Your task to perform on an android device: turn off data saver in the chrome app Image 0: 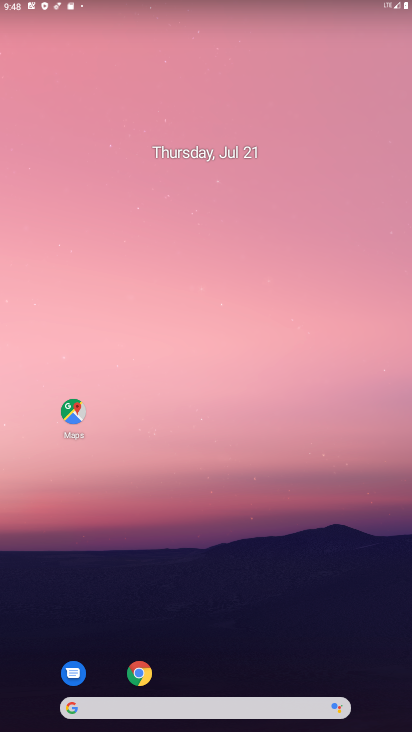
Step 0: click (145, 676)
Your task to perform on an android device: turn off data saver in the chrome app Image 1: 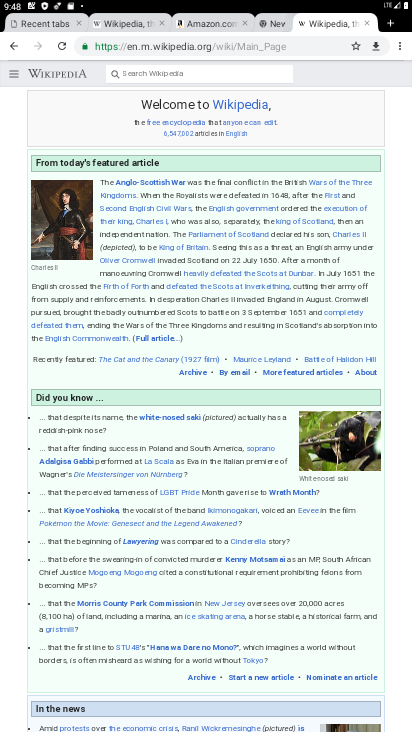
Step 1: click (395, 49)
Your task to perform on an android device: turn off data saver in the chrome app Image 2: 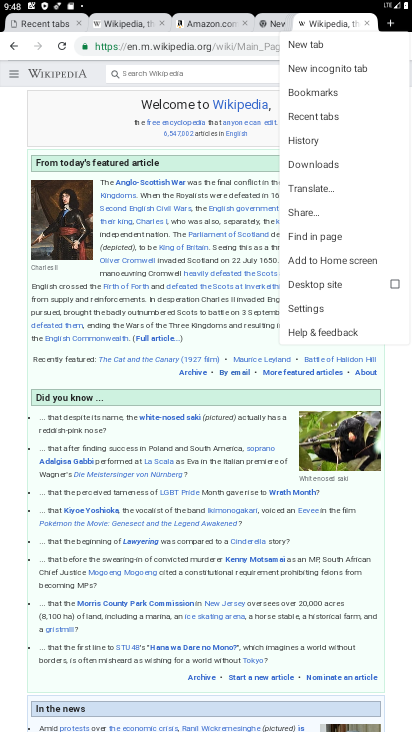
Step 2: click (309, 312)
Your task to perform on an android device: turn off data saver in the chrome app Image 3: 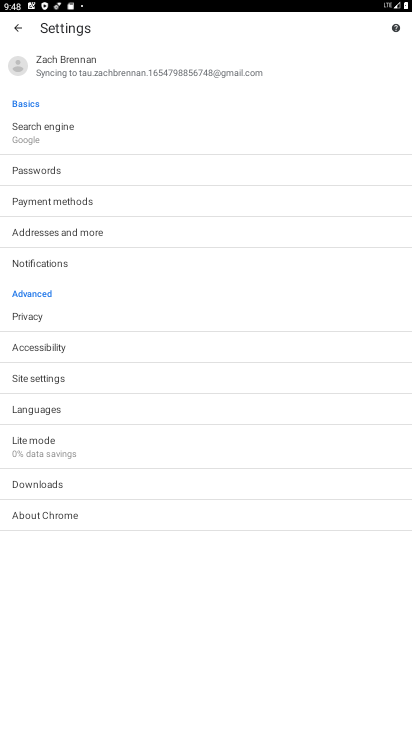
Step 3: click (55, 460)
Your task to perform on an android device: turn off data saver in the chrome app Image 4: 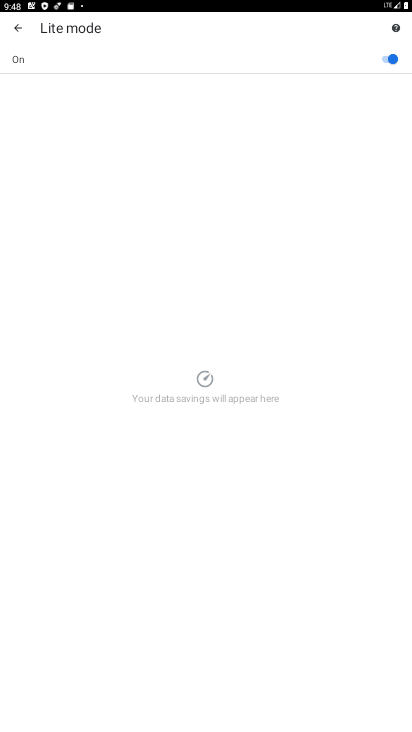
Step 4: click (379, 67)
Your task to perform on an android device: turn off data saver in the chrome app Image 5: 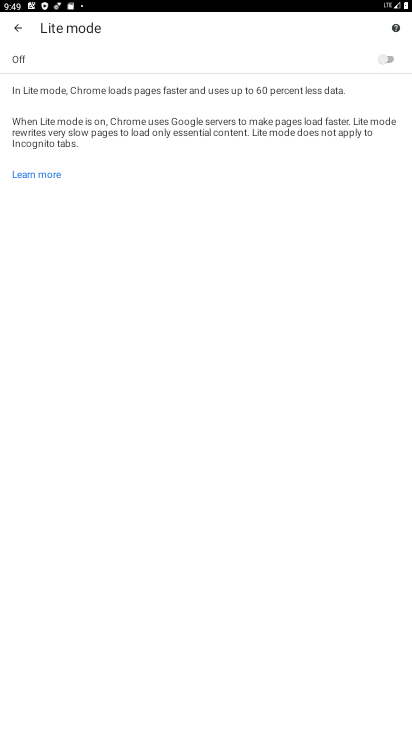
Step 5: task complete